Your task to perform on an android device: Open sound settings Image 0: 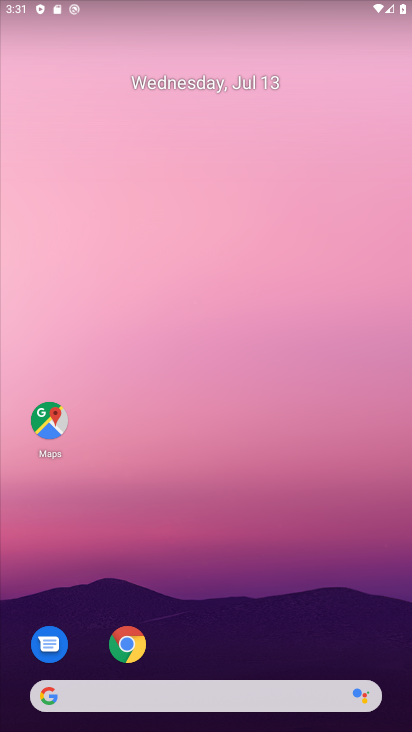
Step 0: drag from (209, 644) to (225, 140)
Your task to perform on an android device: Open sound settings Image 1: 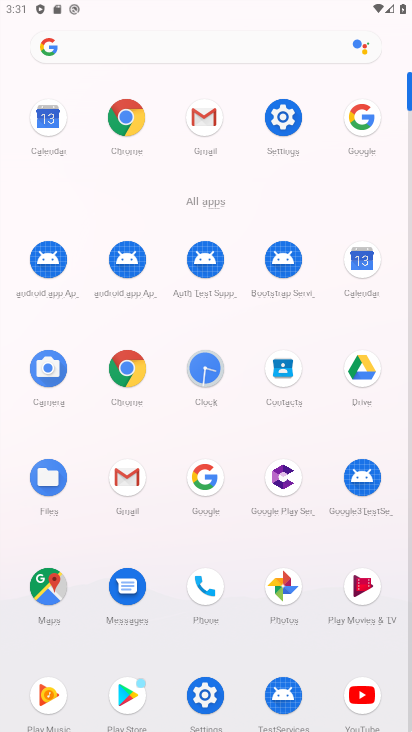
Step 1: click (273, 129)
Your task to perform on an android device: Open sound settings Image 2: 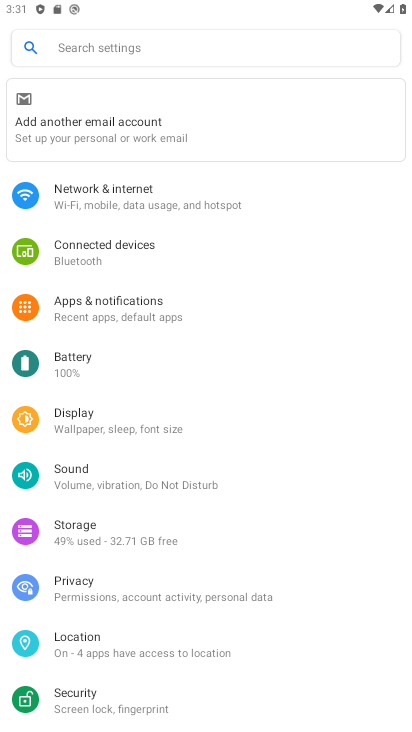
Step 2: click (115, 474)
Your task to perform on an android device: Open sound settings Image 3: 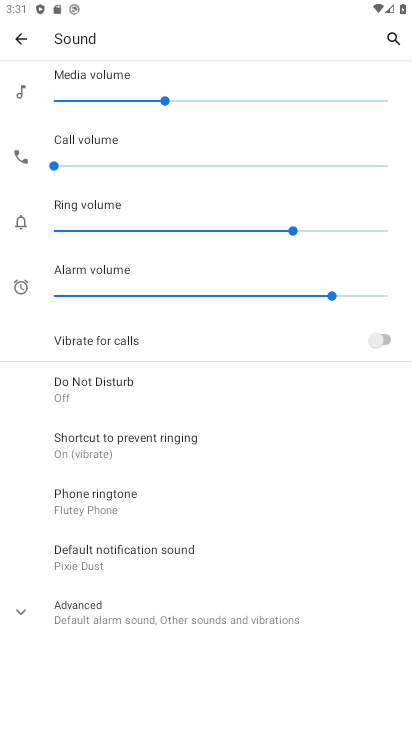
Step 3: task complete